Your task to perform on an android device: Search for Mexican restaurants on Maps Image 0: 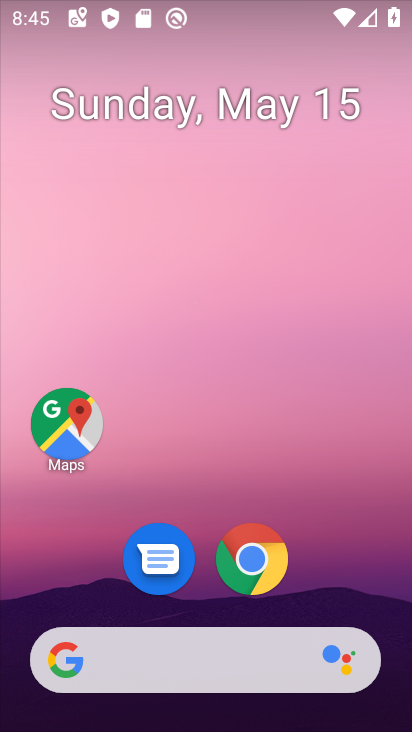
Step 0: click (58, 397)
Your task to perform on an android device: Search for Mexican restaurants on Maps Image 1: 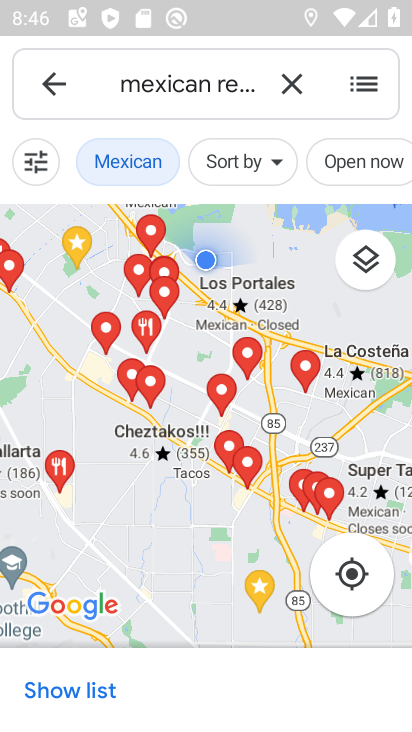
Step 1: task complete